Your task to perform on an android device: Open location settings Image 0: 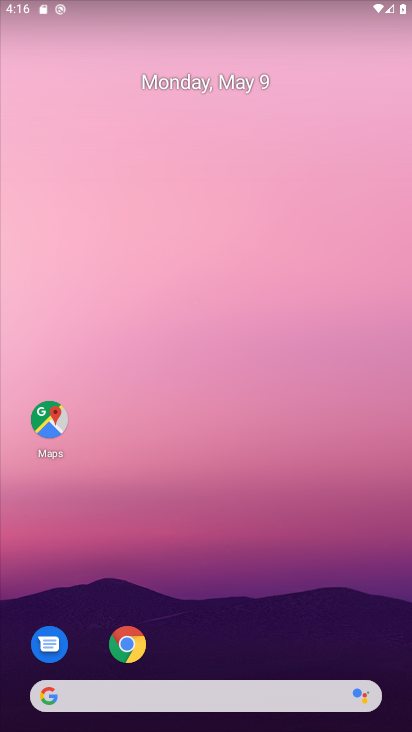
Step 0: drag from (255, 625) to (281, 53)
Your task to perform on an android device: Open location settings Image 1: 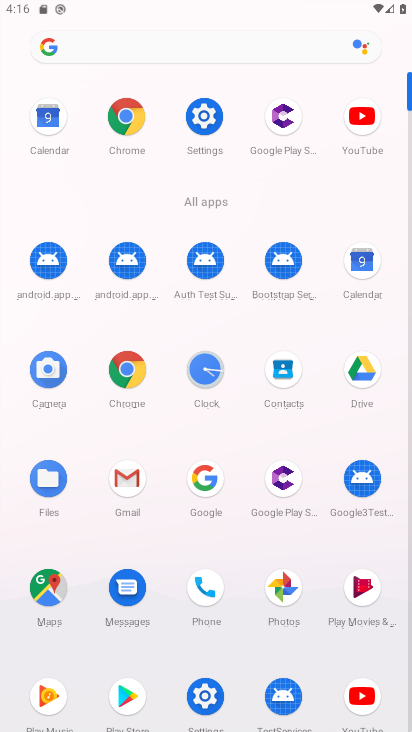
Step 1: click (205, 695)
Your task to perform on an android device: Open location settings Image 2: 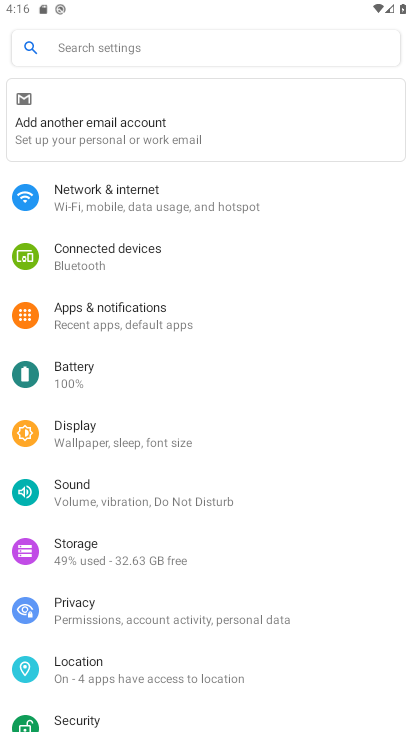
Step 2: drag from (136, 470) to (160, 334)
Your task to perform on an android device: Open location settings Image 3: 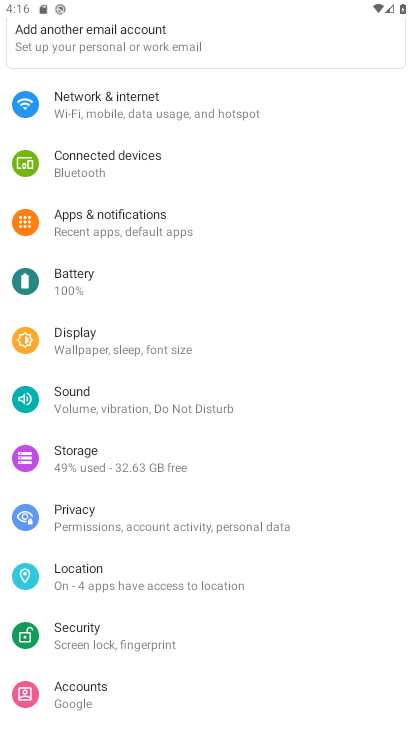
Step 3: click (105, 573)
Your task to perform on an android device: Open location settings Image 4: 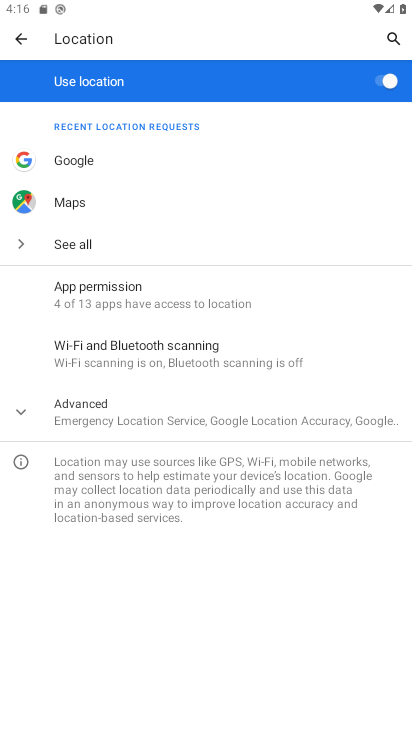
Step 4: task complete